Your task to perform on an android device: Go to settings Image 0: 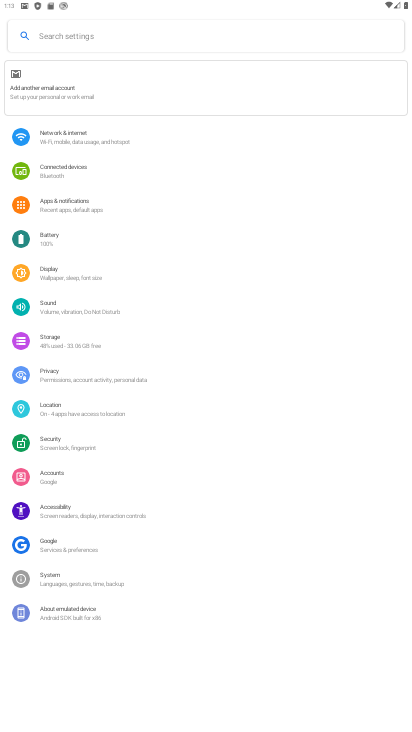
Step 0: task complete